Your task to perform on an android device: Open calendar and show me the fourth week of next month Image 0: 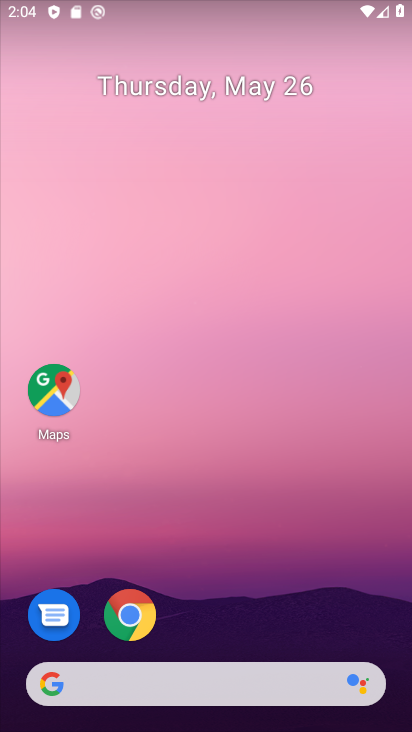
Step 0: drag from (194, 671) to (270, 102)
Your task to perform on an android device: Open calendar and show me the fourth week of next month Image 1: 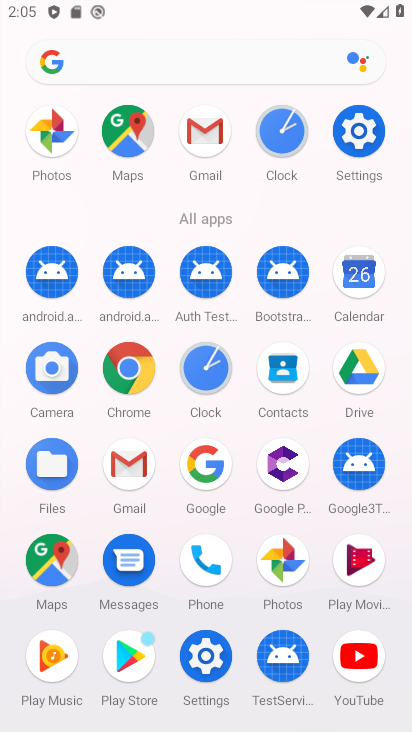
Step 1: click (371, 283)
Your task to perform on an android device: Open calendar and show me the fourth week of next month Image 2: 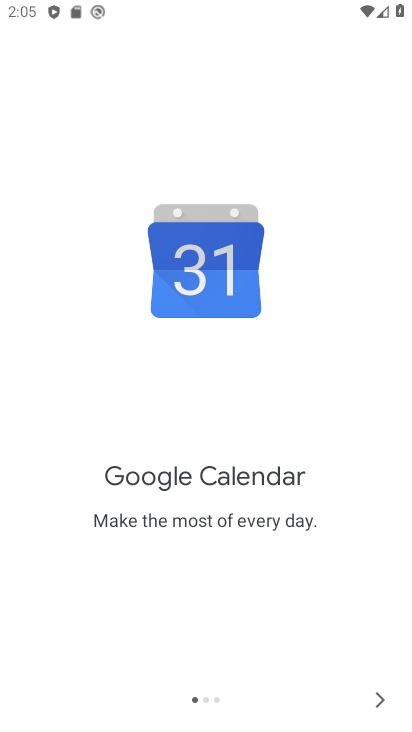
Step 2: click (376, 689)
Your task to perform on an android device: Open calendar and show me the fourth week of next month Image 3: 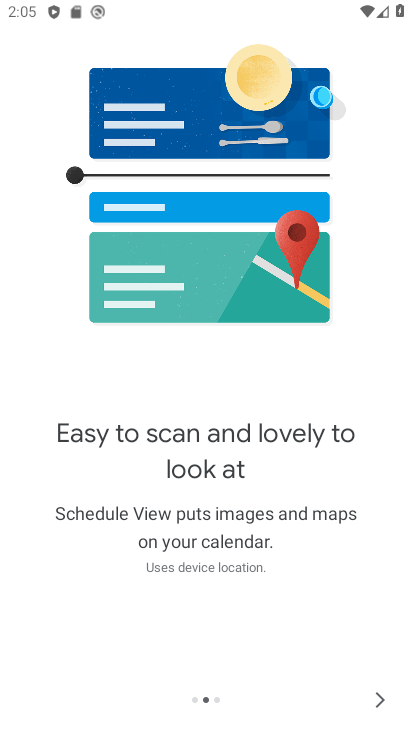
Step 3: click (377, 696)
Your task to perform on an android device: Open calendar and show me the fourth week of next month Image 4: 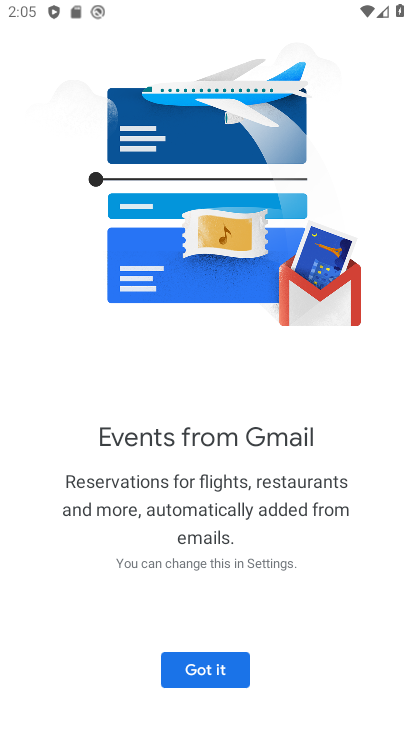
Step 4: click (215, 663)
Your task to perform on an android device: Open calendar and show me the fourth week of next month Image 5: 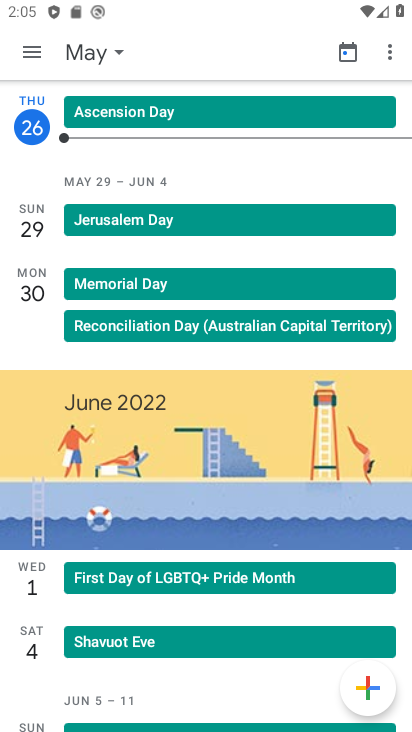
Step 5: click (103, 51)
Your task to perform on an android device: Open calendar and show me the fourth week of next month Image 6: 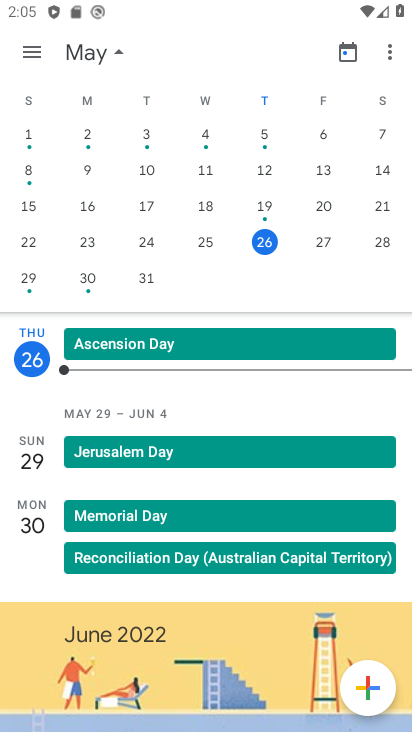
Step 6: drag from (379, 265) to (48, 255)
Your task to perform on an android device: Open calendar and show me the fourth week of next month Image 7: 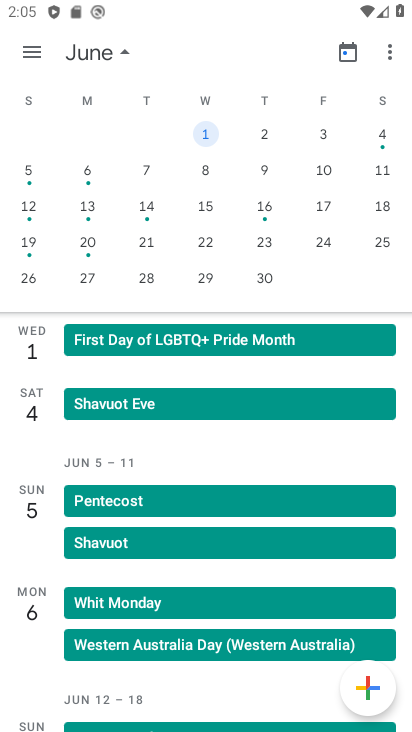
Step 7: click (31, 273)
Your task to perform on an android device: Open calendar and show me the fourth week of next month Image 8: 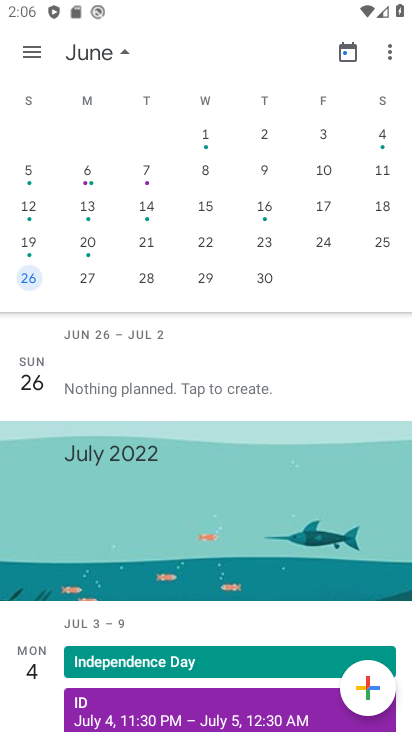
Step 8: click (131, 54)
Your task to perform on an android device: Open calendar and show me the fourth week of next month Image 9: 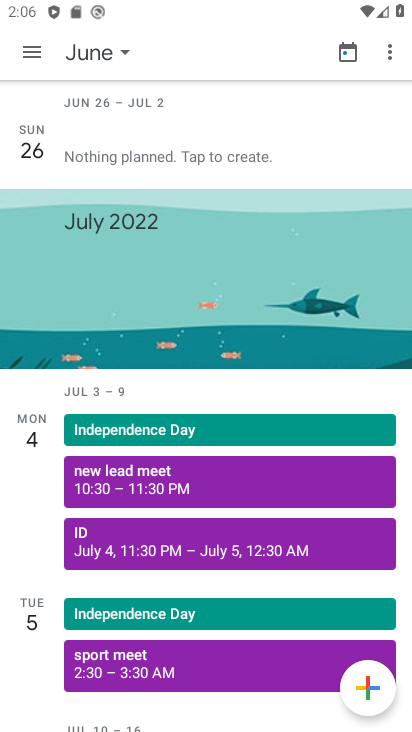
Step 9: click (36, 48)
Your task to perform on an android device: Open calendar and show me the fourth week of next month Image 10: 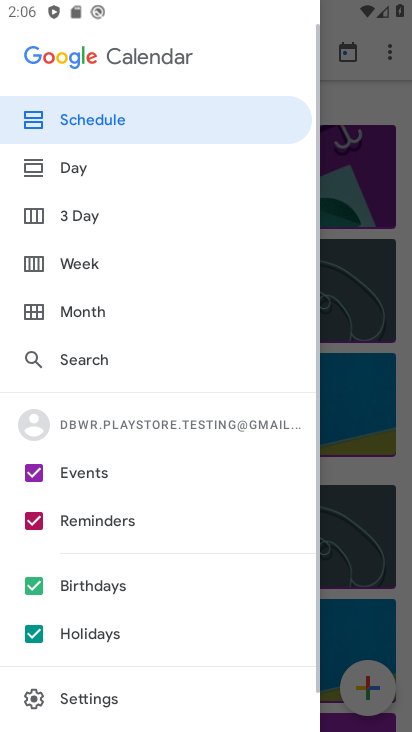
Step 10: click (112, 267)
Your task to perform on an android device: Open calendar and show me the fourth week of next month Image 11: 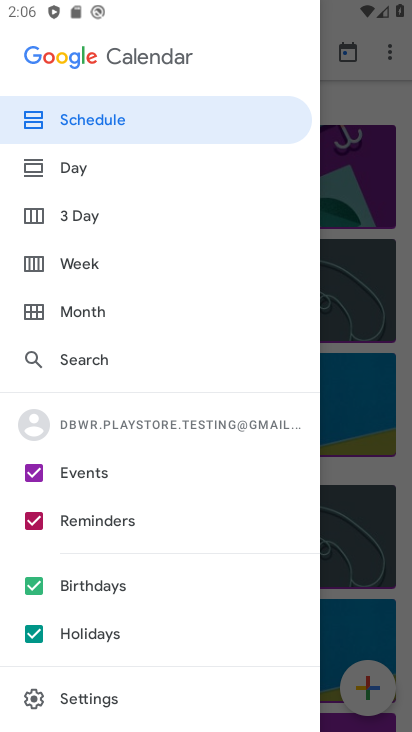
Step 11: click (112, 267)
Your task to perform on an android device: Open calendar and show me the fourth week of next month Image 12: 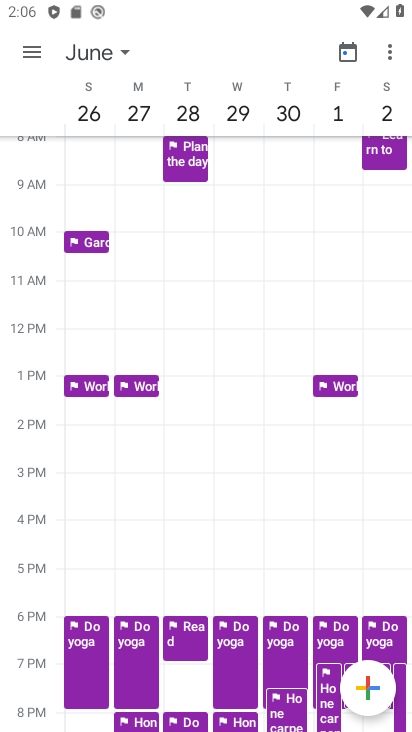
Step 12: task complete